Your task to perform on an android device: Open the calendar app, open the side menu, and click the "Day" option Image 0: 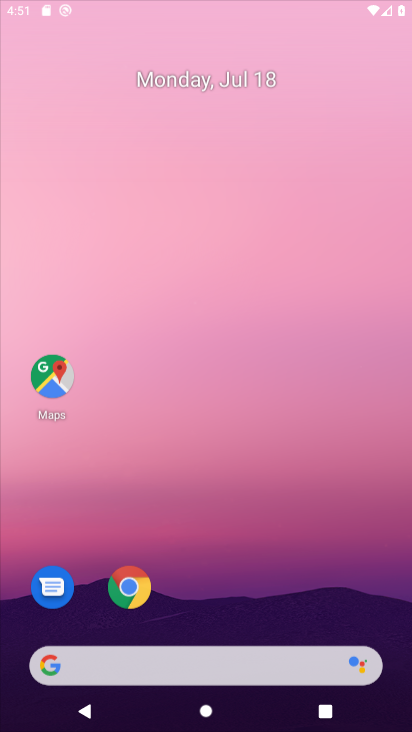
Step 0: click (33, 41)
Your task to perform on an android device: Open the calendar app, open the side menu, and click the "Day" option Image 1: 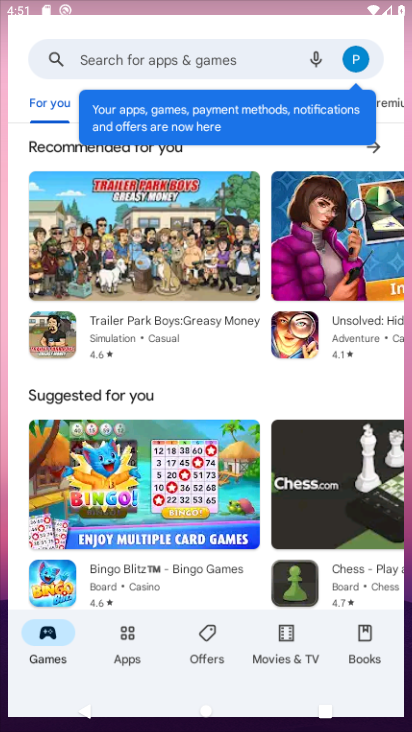
Step 1: press back button
Your task to perform on an android device: Open the calendar app, open the side menu, and click the "Day" option Image 2: 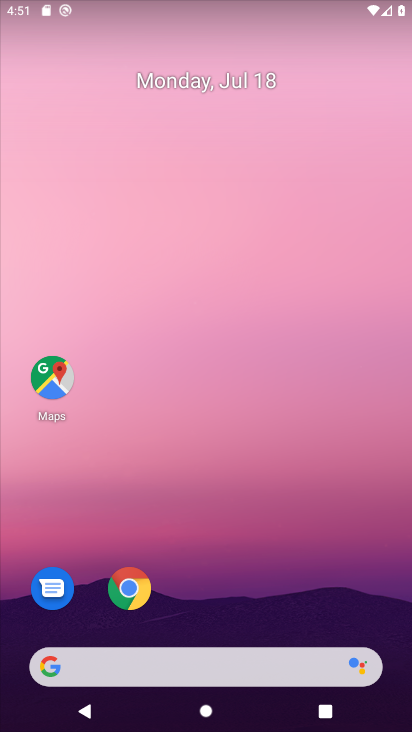
Step 2: press home button
Your task to perform on an android device: Open the calendar app, open the side menu, and click the "Day" option Image 3: 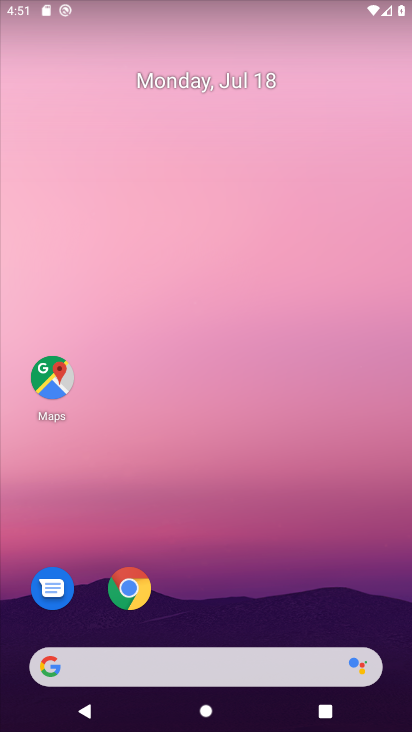
Step 3: drag from (240, 392) to (210, 158)
Your task to perform on an android device: Open the calendar app, open the side menu, and click the "Day" option Image 4: 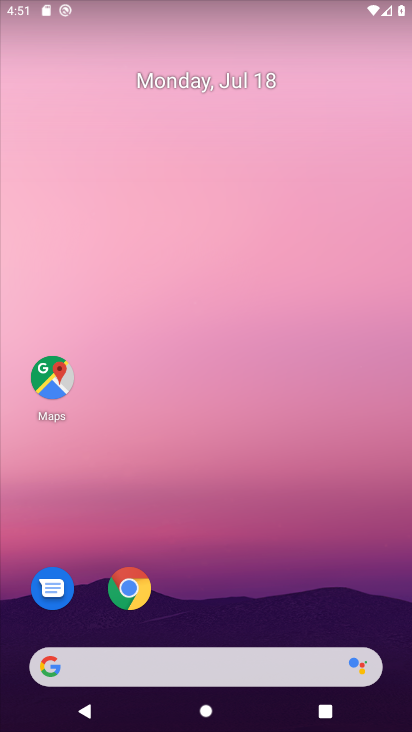
Step 4: drag from (258, 624) to (80, 212)
Your task to perform on an android device: Open the calendar app, open the side menu, and click the "Day" option Image 5: 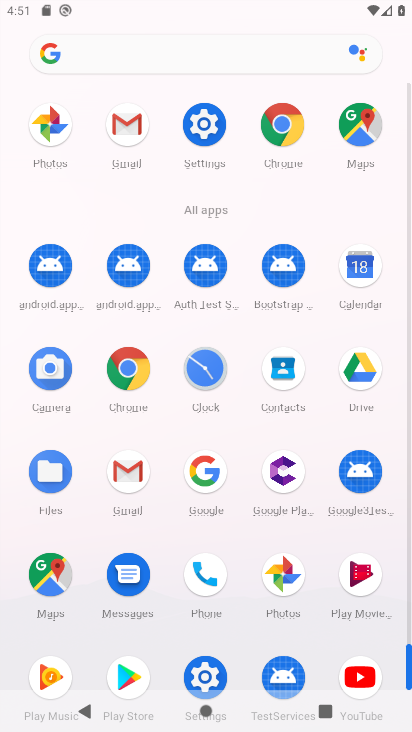
Step 5: click (355, 268)
Your task to perform on an android device: Open the calendar app, open the side menu, and click the "Day" option Image 6: 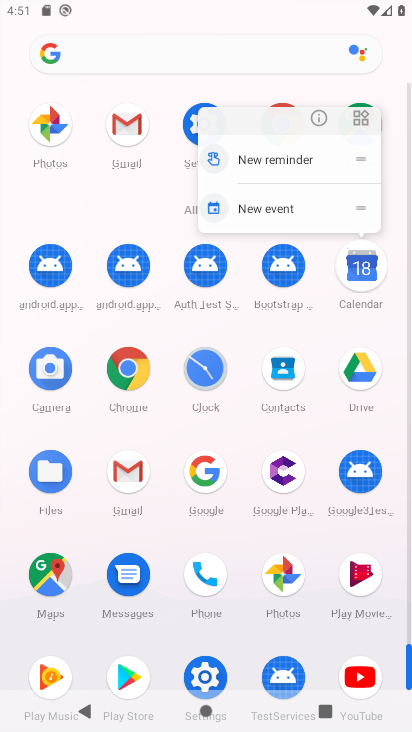
Step 6: click (355, 268)
Your task to perform on an android device: Open the calendar app, open the side menu, and click the "Day" option Image 7: 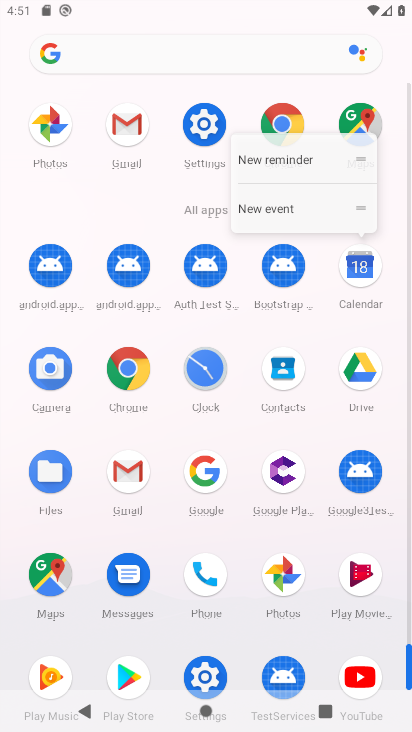
Step 7: click (359, 265)
Your task to perform on an android device: Open the calendar app, open the side menu, and click the "Day" option Image 8: 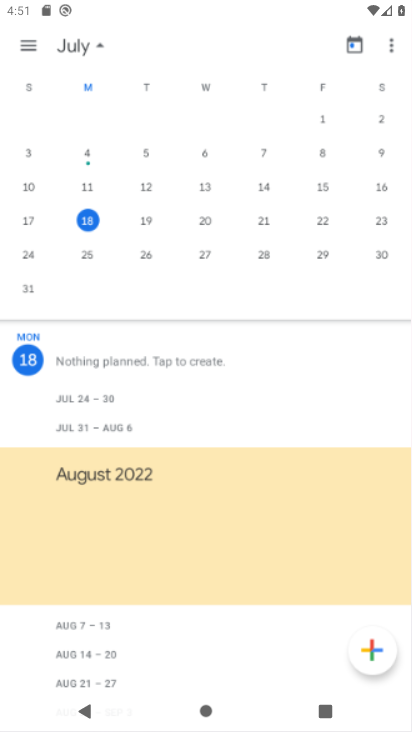
Step 8: click (363, 264)
Your task to perform on an android device: Open the calendar app, open the side menu, and click the "Day" option Image 9: 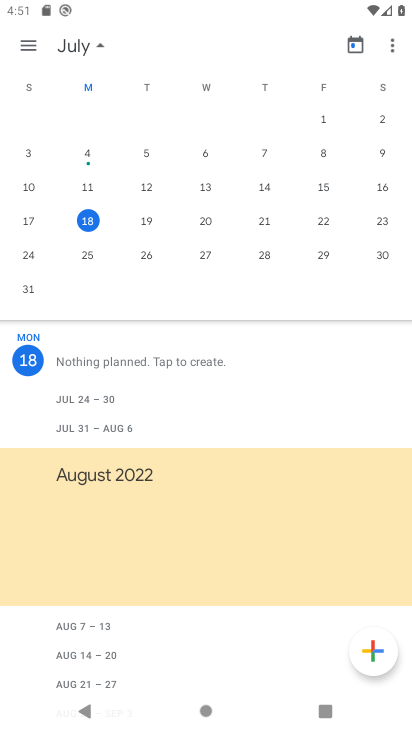
Step 9: click (33, 51)
Your task to perform on an android device: Open the calendar app, open the side menu, and click the "Day" option Image 10: 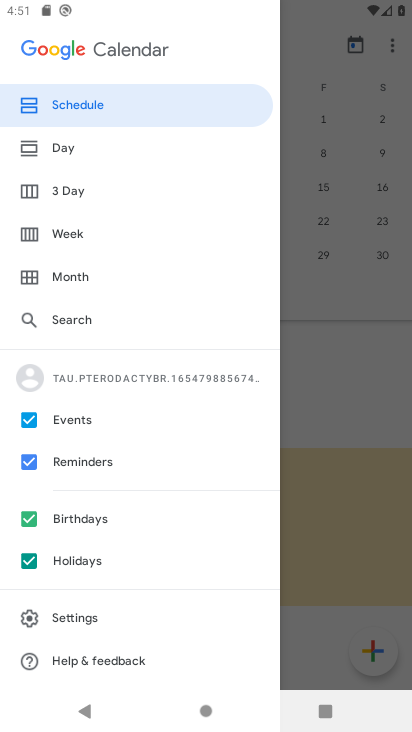
Step 10: click (60, 142)
Your task to perform on an android device: Open the calendar app, open the side menu, and click the "Day" option Image 11: 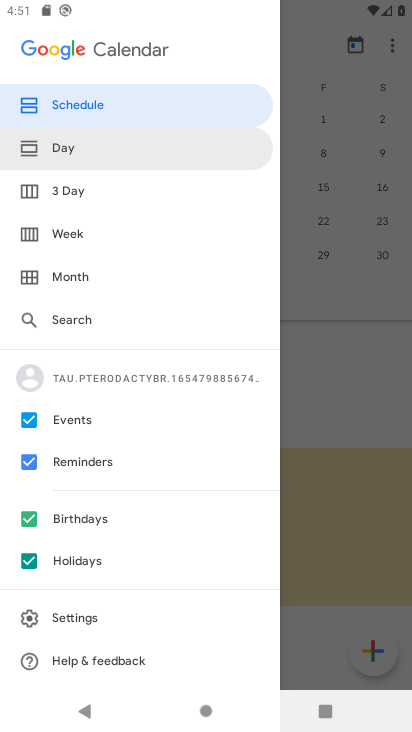
Step 11: click (59, 141)
Your task to perform on an android device: Open the calendar app, open the side menu, and click the "Day" option Image 12: 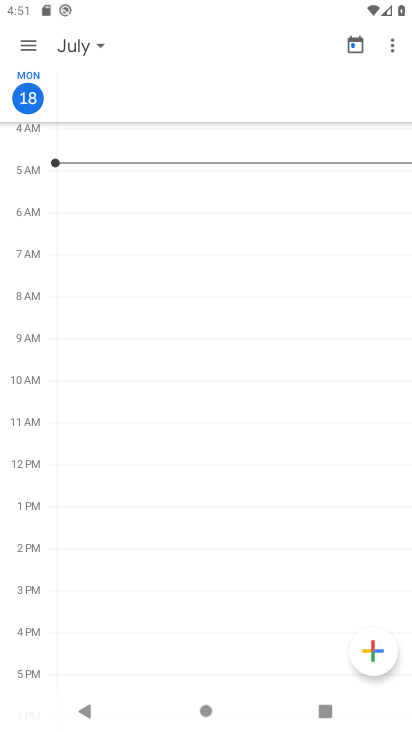
Step 12: task complete